Your task to perform on an android device: add a contact Image 0: 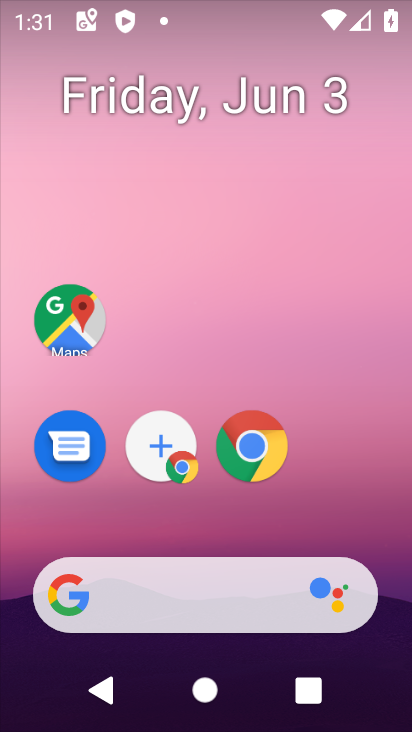
Step 0: drag from (249, 434) to (298, 0)
Your task to perform on an android device: add a contact Image 1: 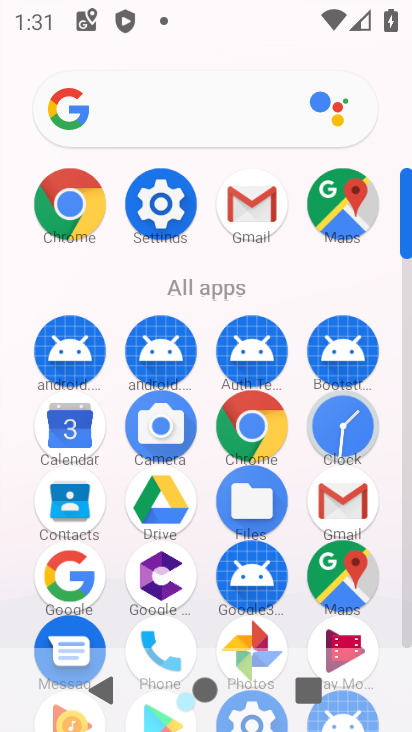
Step 1: click (56, 495)
Your task to perform on an android device: add a contact Image 2: 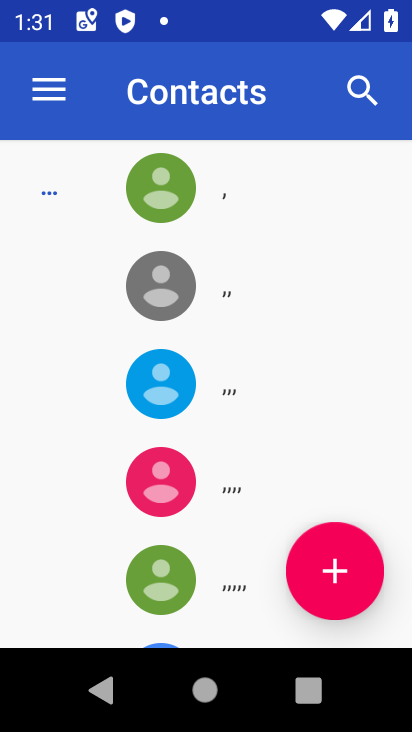
Step 2: click (328, 569)
Your task to perform on an android device: add a contact Image 3: 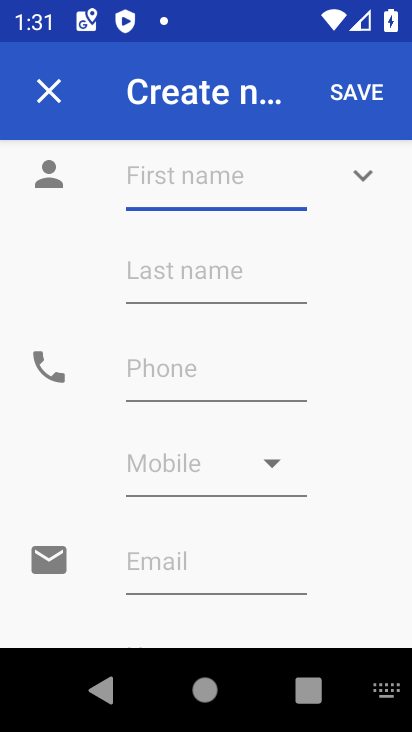
Step 3: type "iyyiguijh"
Your task to perform on an android device: add a contact Image 4: 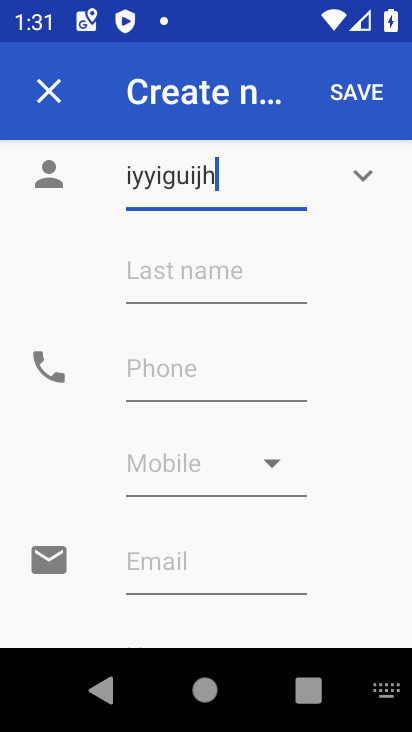
Step 4: click (234, 379)
Your task to perform on an android device: add a contact Image 5: 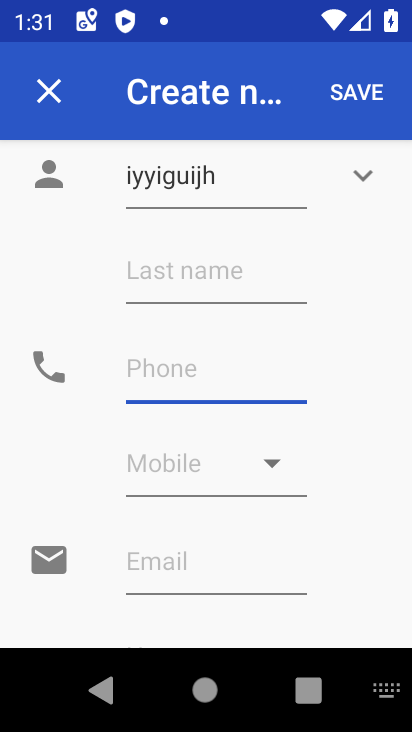
Step 5: type "778899"
Your task to perform on an android device: add a contact Image 6: 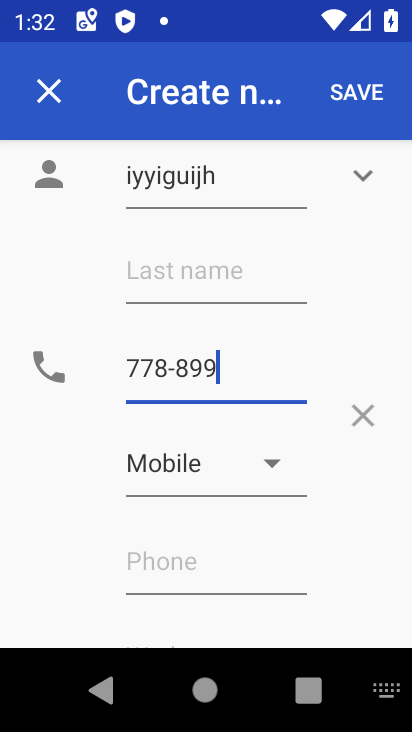
Step 6: click (375, 81)
Your task to perform on an android device: add a contact Image 7: 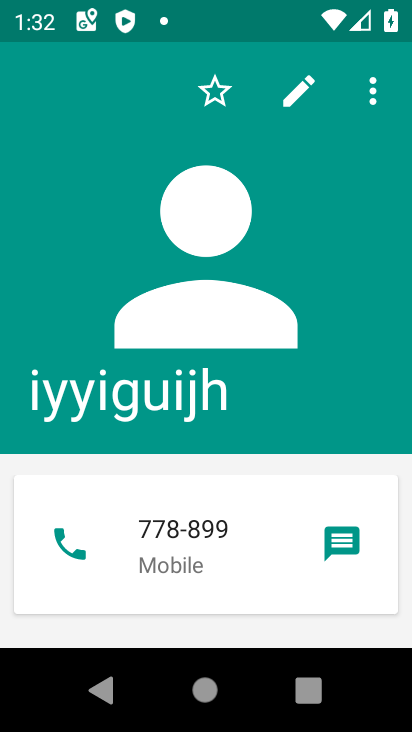
Step 7: task complete